Your task to perform on an android device: Search for pizza restaurants on Maps Image 0: 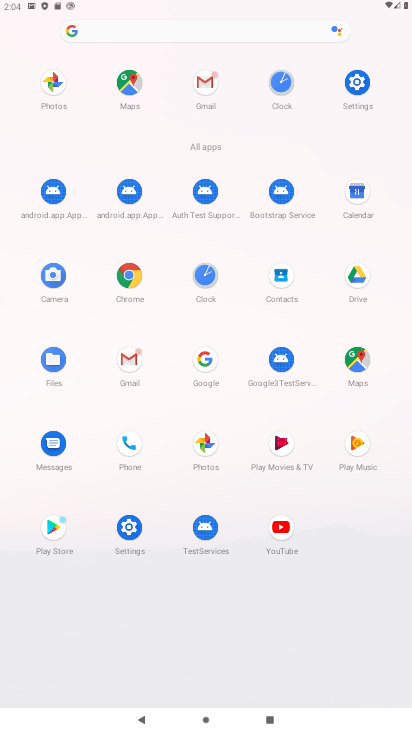
Step 0: press home button
Your task to perform on an android device: Search for pizza restaurants on Maps Image 1: 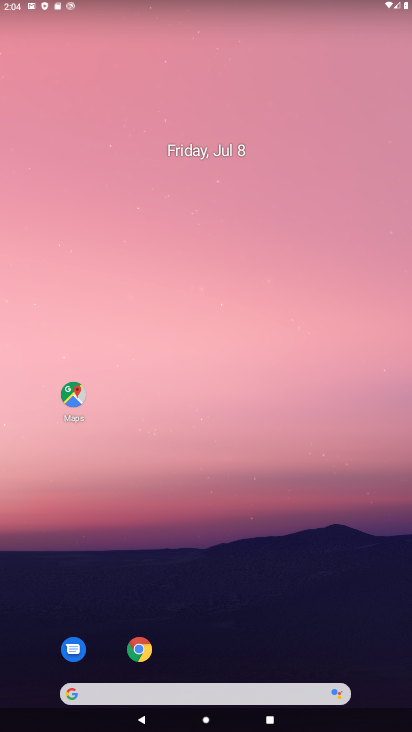
Step 1: click (73, 394)
Your task to perform on an android device: Search for pizza restaurants on Maps Image 2: 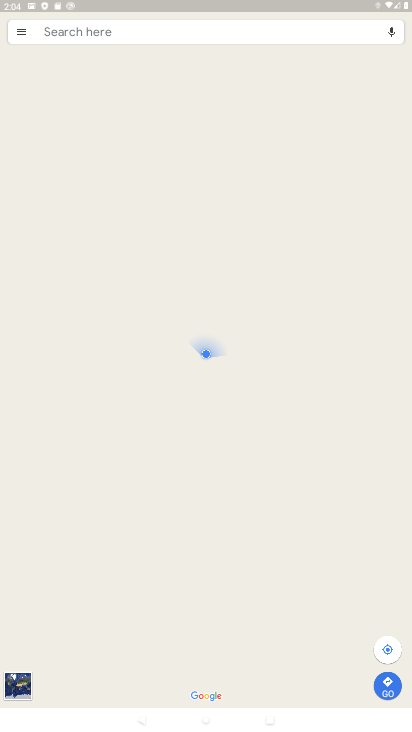
Step 2: click (85, 29)
Your task to perform on an android device: Search for pizza restaurants on Maps Image 3: 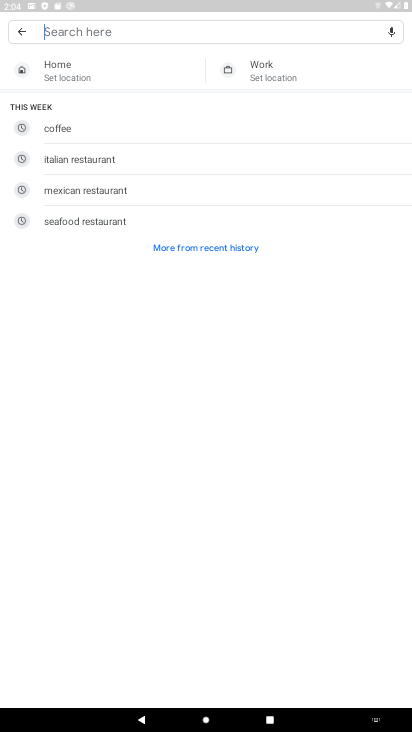
Step 3: type "pizza restaurants"
Your task to perform on an android device: Search for pizza restaurants on Maps Image 4: 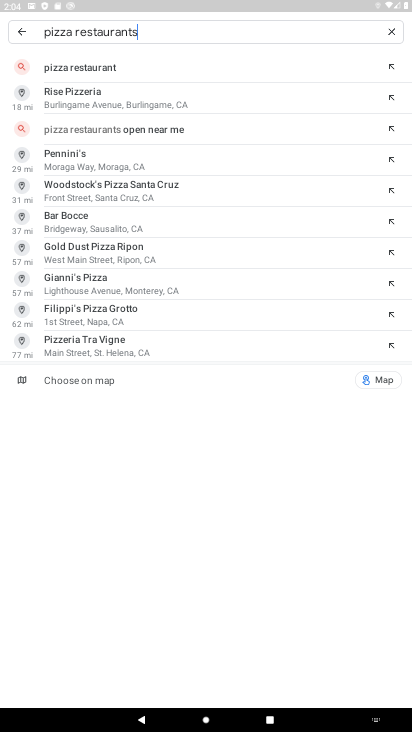
Step 4: click (85, 71)
Your task to perform on an android device: Search for pizza restaurants on Maps Image 5: 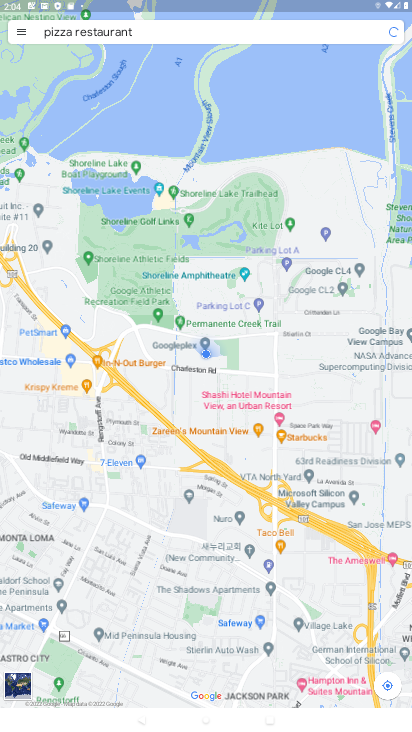
Step 5: task complete